Your task to perform on an android device: toggle notifications settings in the gmail app Image 0: 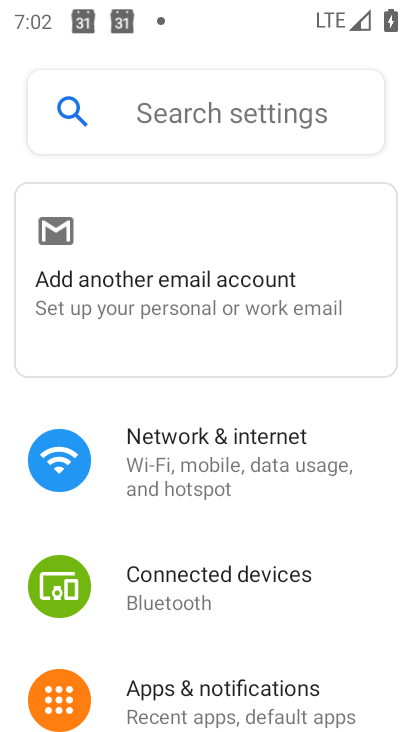
Step 0: press home button
Your task to perform on an android device: toggle notifications settings in the gmail app Image 1: 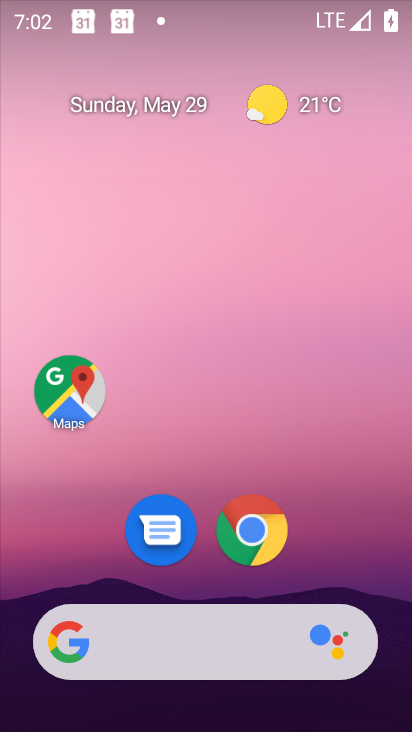
Step 1: drag from (139, 632) to (145, 78)
Your task to perform on an android device: toggle notifications settings in the gmail app Image 2: 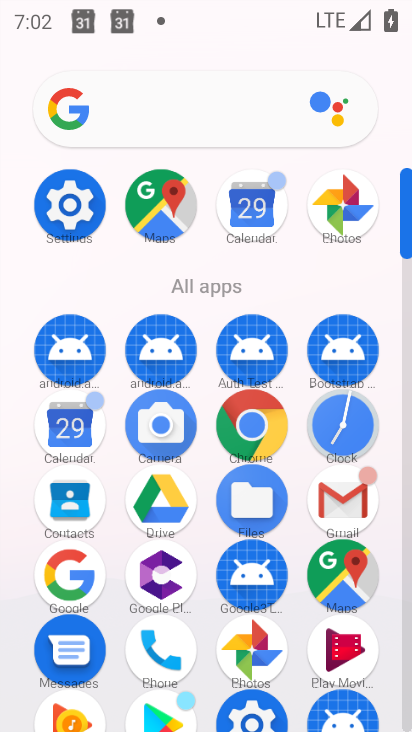
Step 2: click (365, 500)
Your task to perform on an android device: toggle notifications settings in the gmail app Image 3: 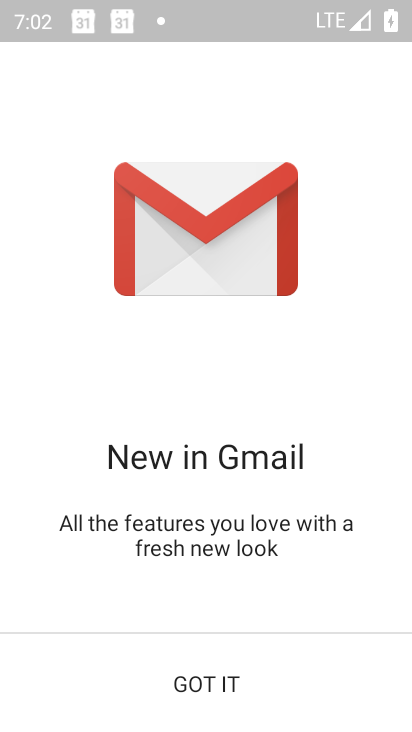
Step 3: click (287, 679)
Your task to perform on an android device: toggle notifications settings in the gmail app Image 4: 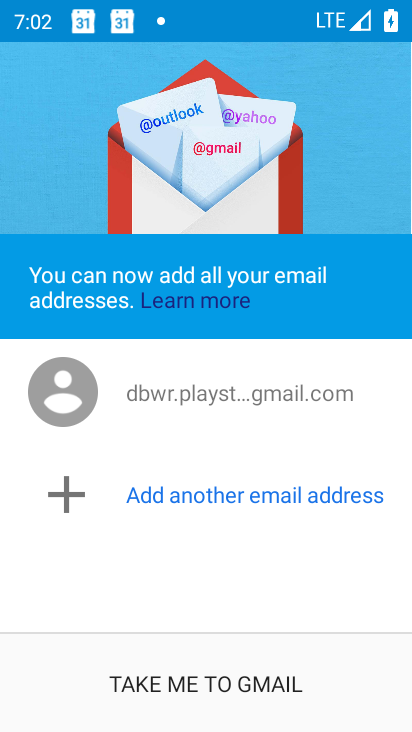
Step 4: click (228, 678)
Your task to perform on an android device: toggle notifications settings in the gmail app Image 5: 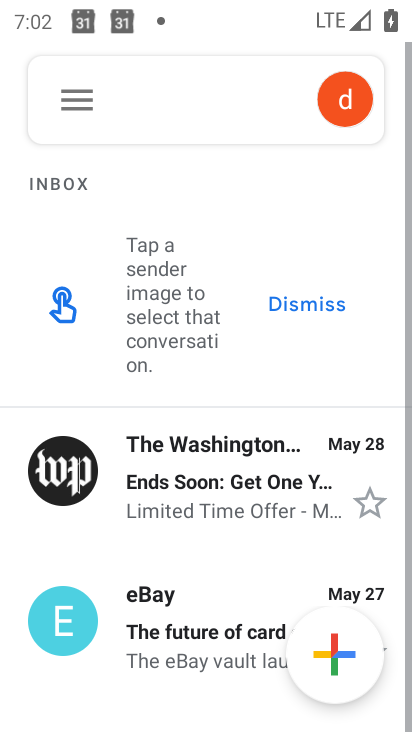
Step 5: click (295, 312)
Your task to perform on an android device: toggle notifications settings in the gmail app Image 6: 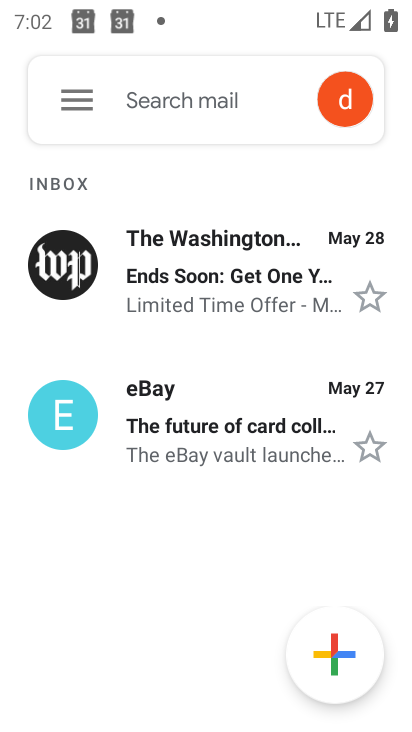
Step 6: click (73, 96)
Your task to perform on an android device: toggle notifications settings in the gmail app Image 7: 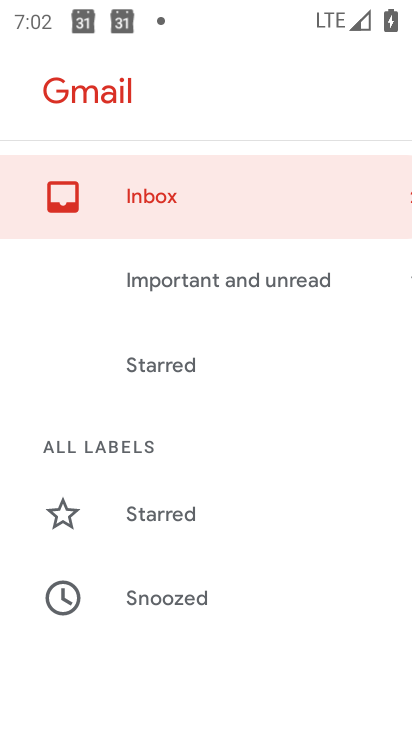
Step 7: drag from (191, 589) to (241, 208)
Your task to perform on an android device: toggle notifications settings in the gmail app Image 8: 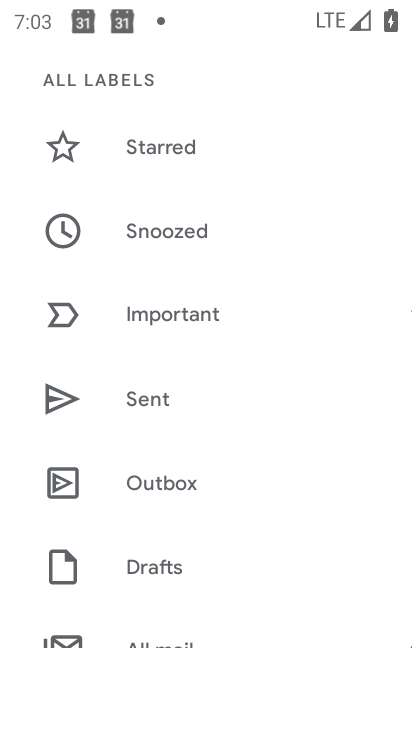
Step 8: drag from (215, 570) to (225, 232)
Your task to perform on an android device: toggle notifications settings in the gmail app Image 9: 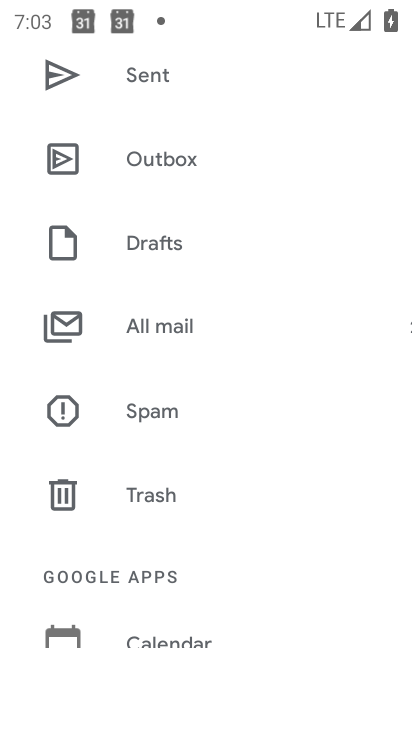
Step 9: drag from (177, 504) to (173, 227)
Your task to perform on an android device: toggle notifications settings in the gmail app Image 10: 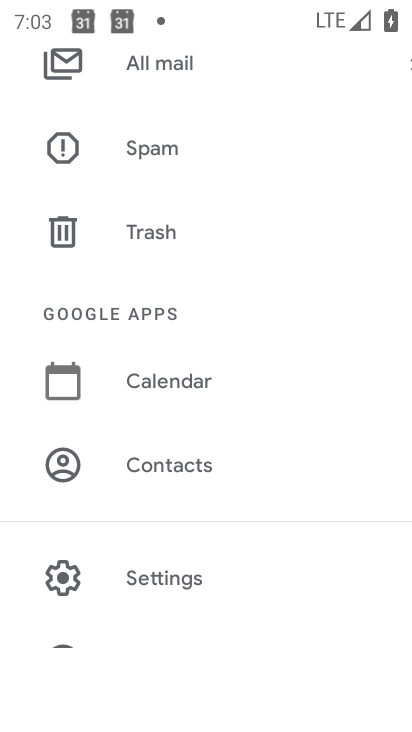
Step 10: click (169, 580)
Your task to perform on an android device: toggle notifications settings in the gmail app Image 11: 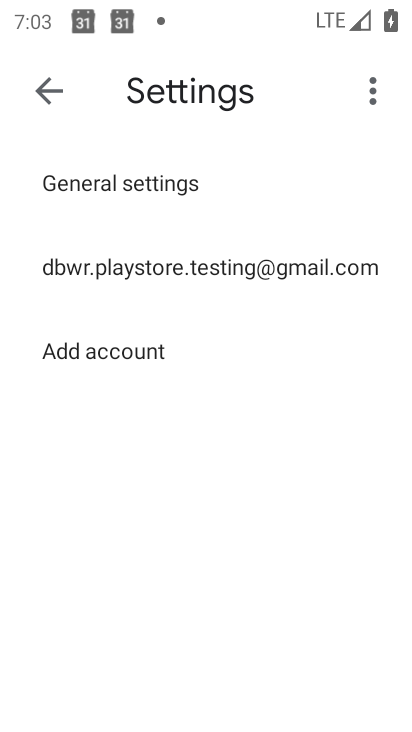
Step 11: click (171, 264)
Your task to perform on an android device: toggle notifications settings in the gmail app Image 12: 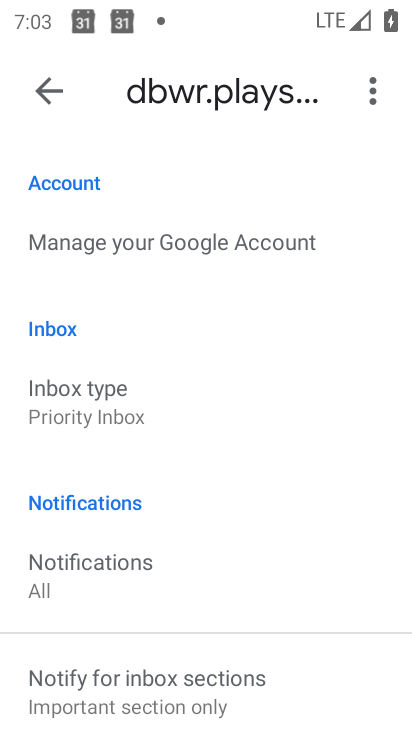
Step 12: click (107, 578)
Your task to perform on an android device: toggle notifications settings in the gmail app Image 13: 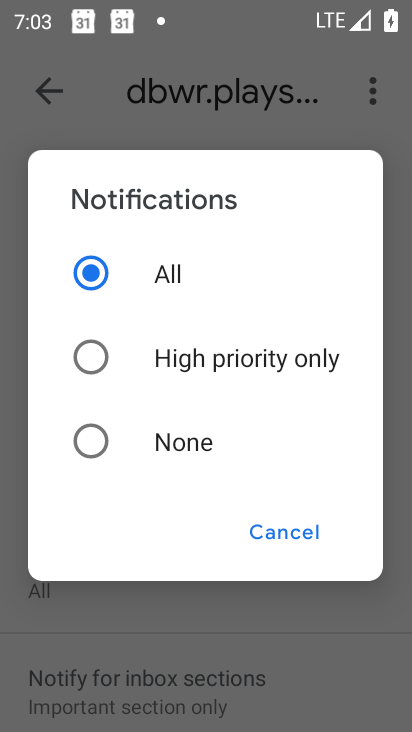
Step 13: task complete